Your task to perform on an android device: choose inbox layout in the gmail app Image 0: 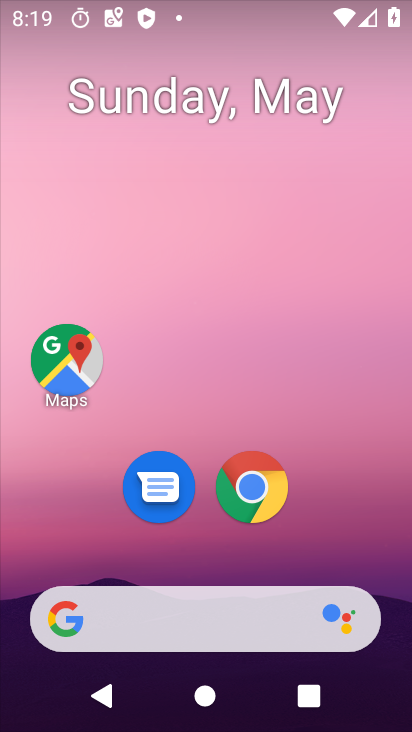
Step 0: drag from (12, 632) to (183, 161)
Your task to perform on an android device: choose inbox layout in the gmail app Image 1: 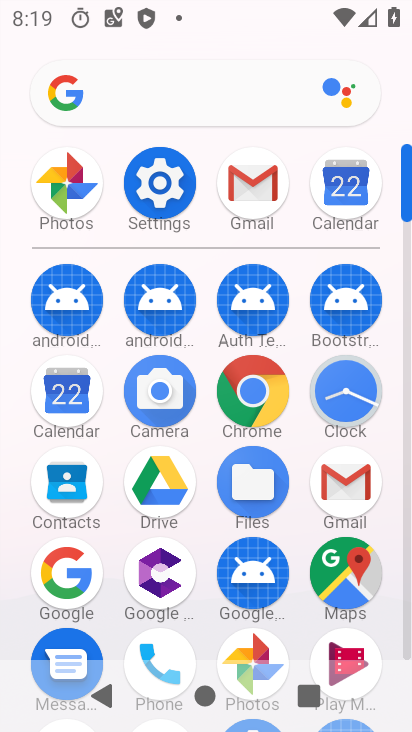
Step 1: click (255, 193)
Your task to perform on an android device: choose inbox layout in the gmail app Image 2: 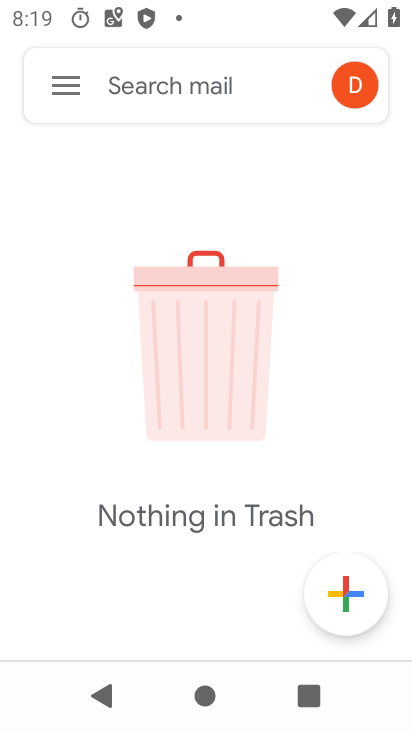
Step 2: click (69, 83)
Your task to perform on an android device: choose inbox layout in the gmail app Image 3: 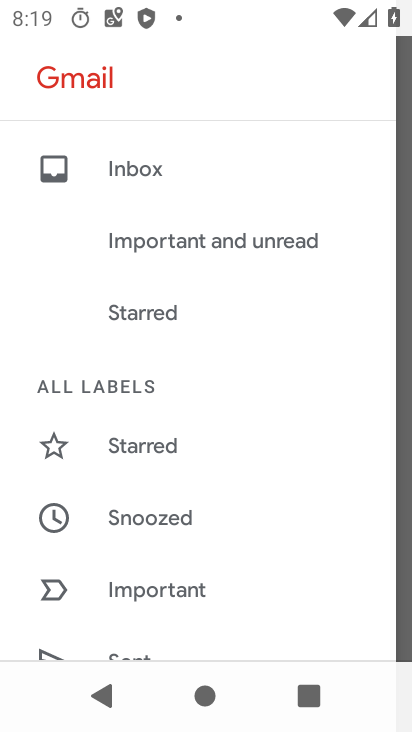
Step 3: drag from (23, 569) to (223, 84)
Your task to perform on an android device: choose inbox layout in the gmail app Image 4: 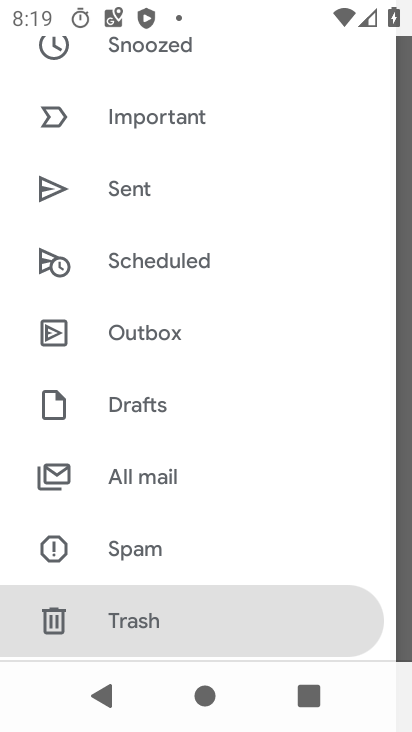
Step 4: drag from (13, 497) to (168, 153)
Your task to perform on an android device: choose inbox layout in the gmail app Image 5: 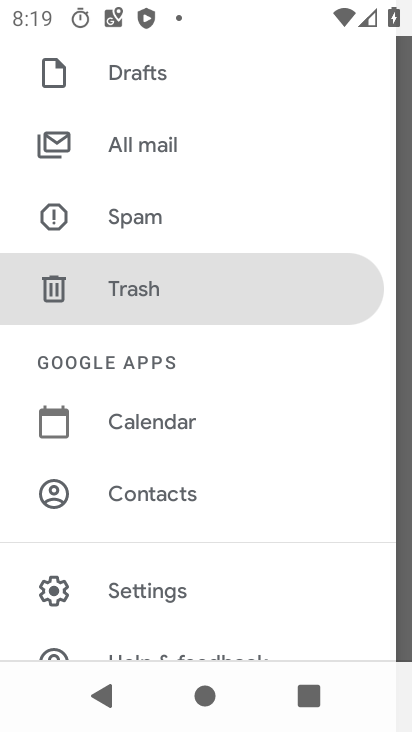
Step 5: click (92, 578)
Your task to perform on an android device: choose inbox layout in the gmail app Image 6: 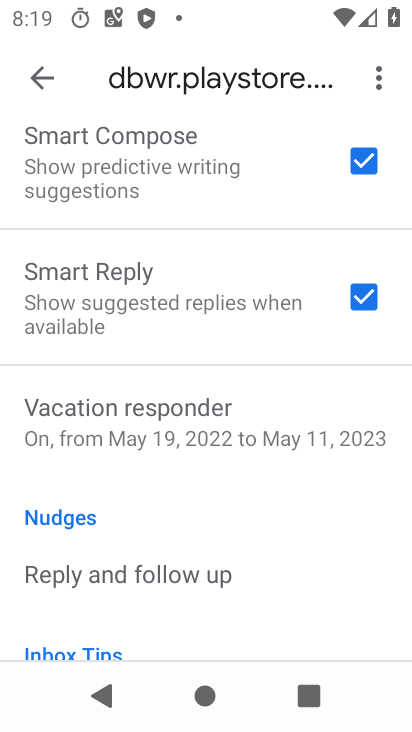
Step 6: press home button
Your task to perform on an android device: choose inbox layout in the gmail app Image 7: 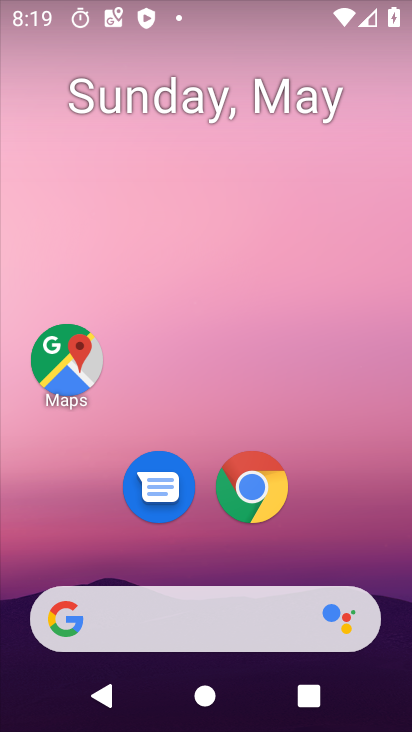
Step 7: drag from (85, 471) to (243, 107)
Your task to perform on an android device: choose inbox layout in the gmail app Image 8: 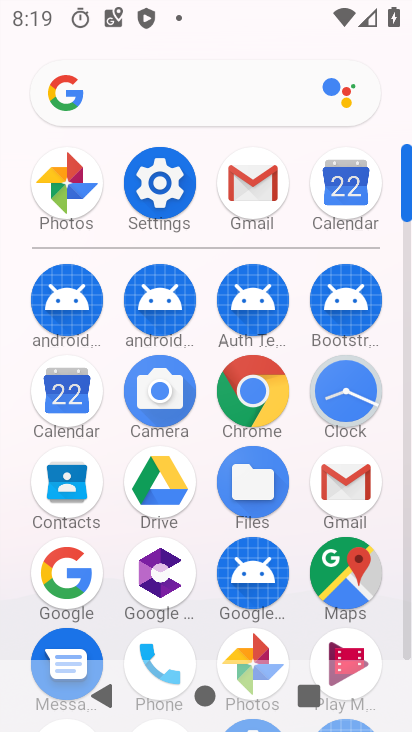
Step 8: click (234, 188)
Your task to perform on an android device: choose inbox layout in the gmail app Image 9: 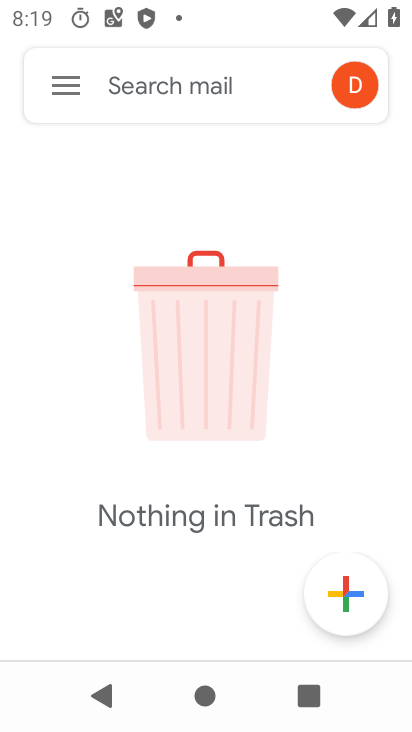
Step 9: click (70, 75)
Your task to perform on an android device: choose inbox layout in the gmail app Image 10: 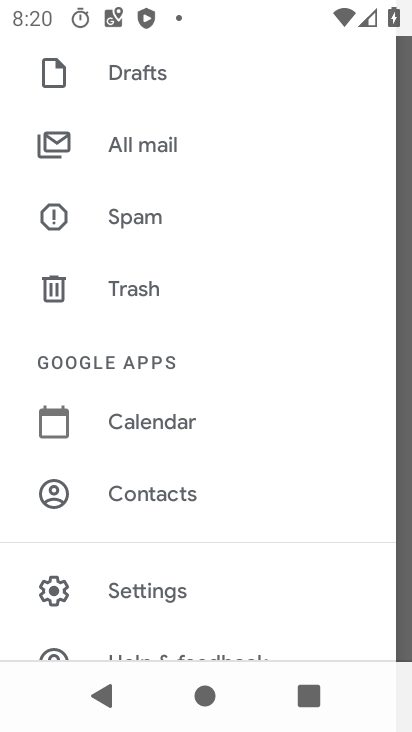
Step 10: drag from (274, 113) to (222, 511)
Your task to perform on an android device: choose inbox layout in the gmail app Image 11: 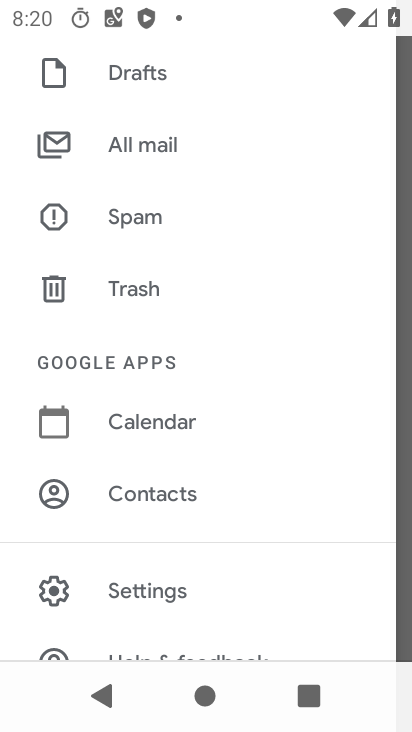
Step 11: drag from (271, 66) to (230, 415)
Your task to perform on an android device: choose inbox layout in the gmail app Image 12: 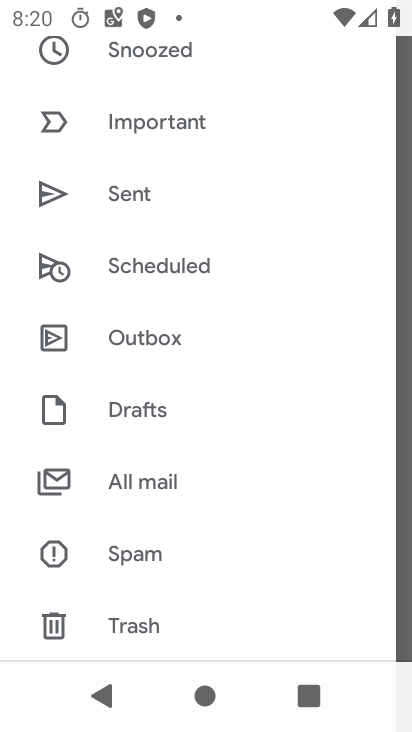
Step 12: drag from (233, 87) to (165, 444)
Your task to perform on an android device: choose inbox layout in the gmail app Image 13: 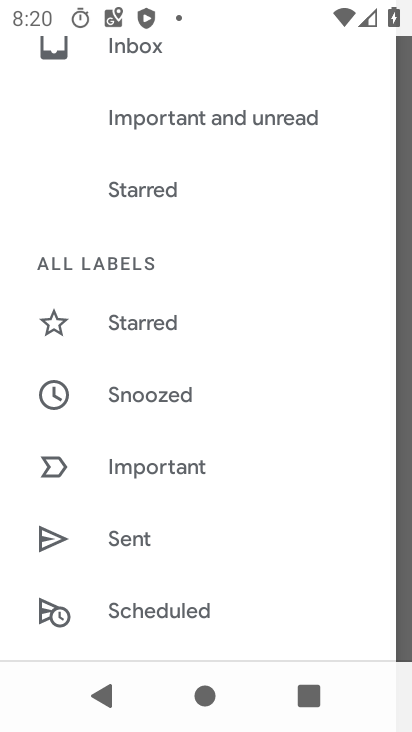
Step 13: drag from (201, 133) to (109, 556)
Your task to perform on an android device: choose inbox layout in the gmail app Image 14: 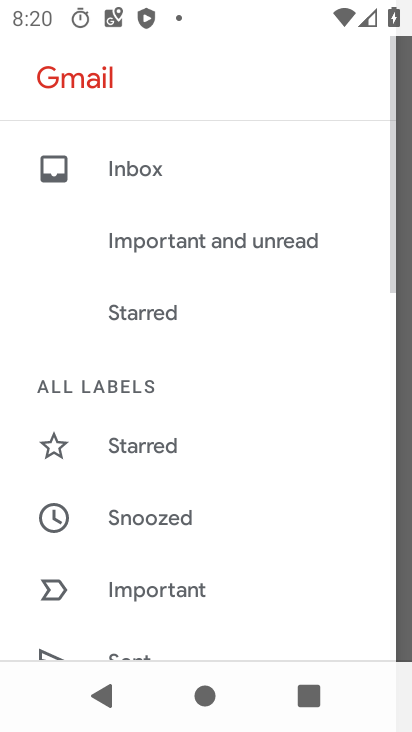
Step 14: click (167, 179)
Your task to perform on an android device: choose inbox layout in the gmail app Image 15: 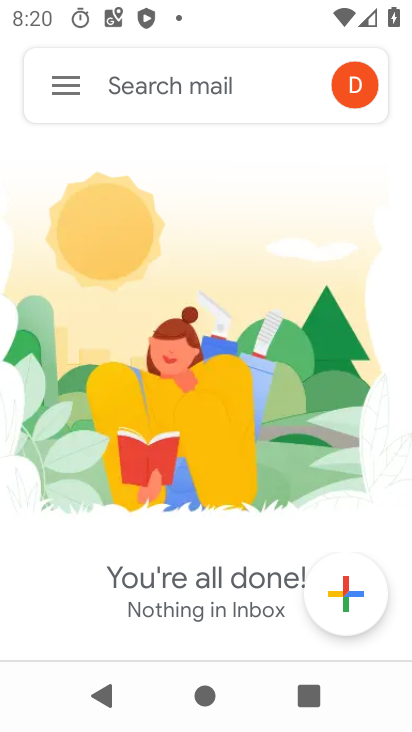
Step 15: task complete